Your task to perform on an android device: check android version Image 0: 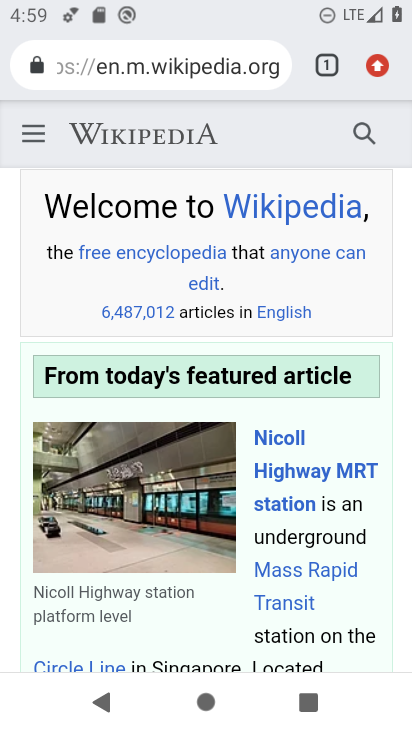
Step 0: press home button
Your task to perform on an android device: check android version Image 1: 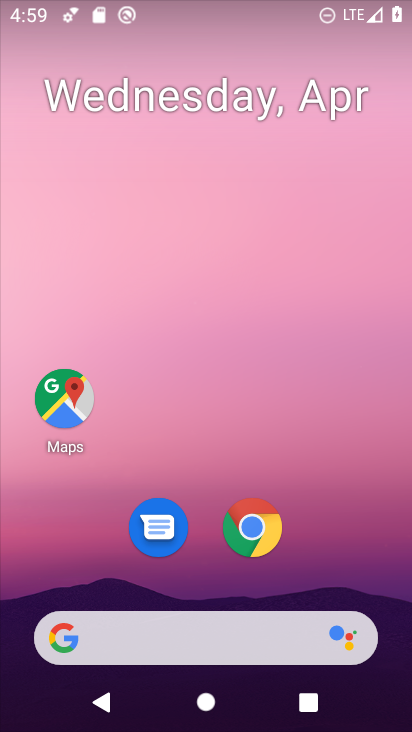
Step 1: drag from (386, 574) to (380, 13)
Your task to perform on an android device: check android version Image 2: 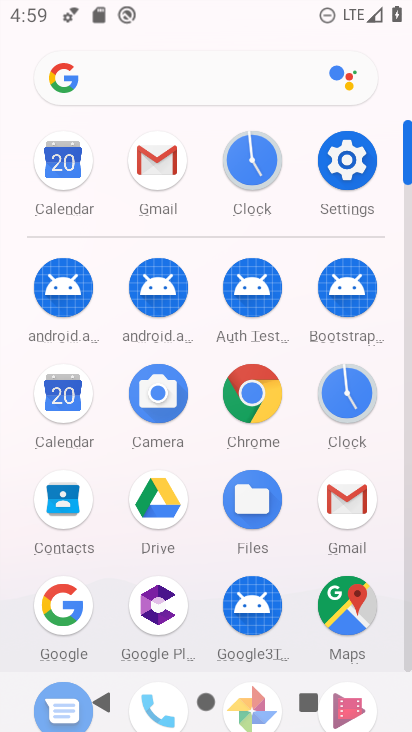
Step 2: click (342, 163)
Your task to perform on an android device: check android version Image 3: 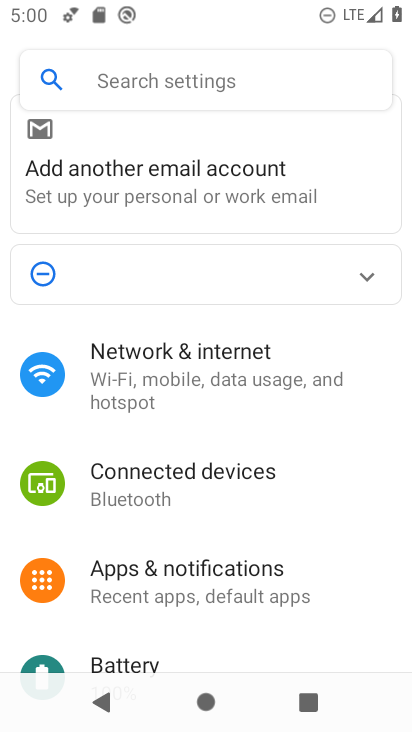
Step 3: drag from (359, 622) to (320, 84)
Your task to perform on an android device: check android version Image 4: 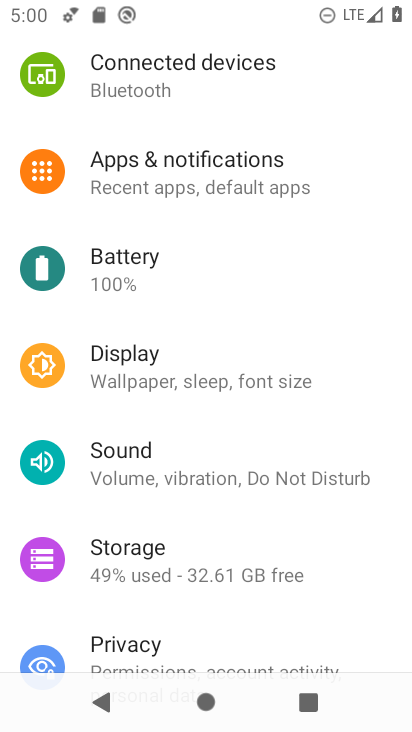
Step 4: drag from (360, 596) to (365, 130)
Your task to perform on an android device: check android version Image 5: 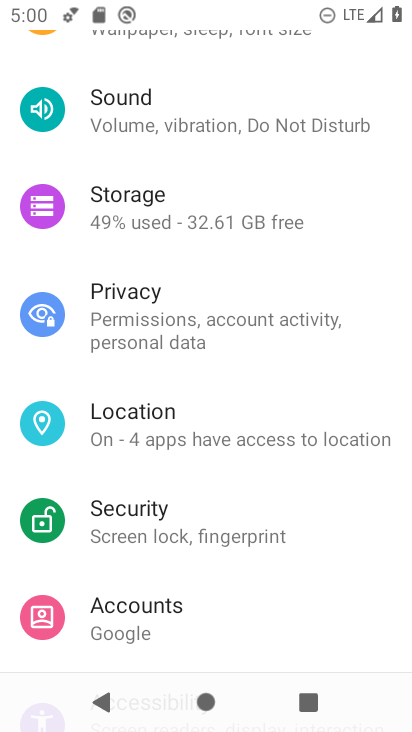
Step 5: drag from (341, 526) to (306, 108)
Your task to perform on an android device: check android version Image 6: 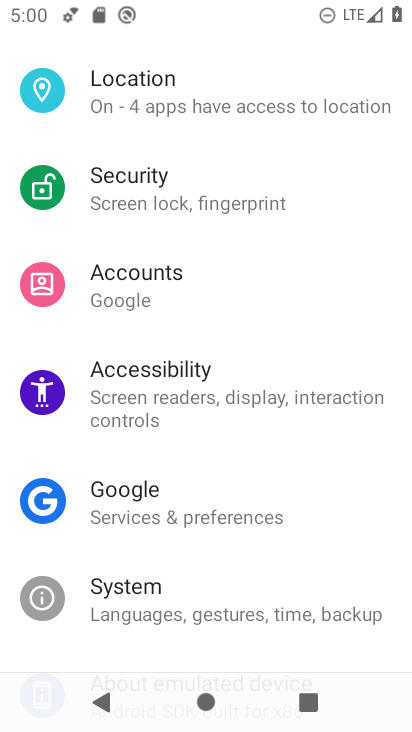
Step 6: drag from (323, 581) to (308, 156)
Your task to perform on an android device: check android version Image 7: 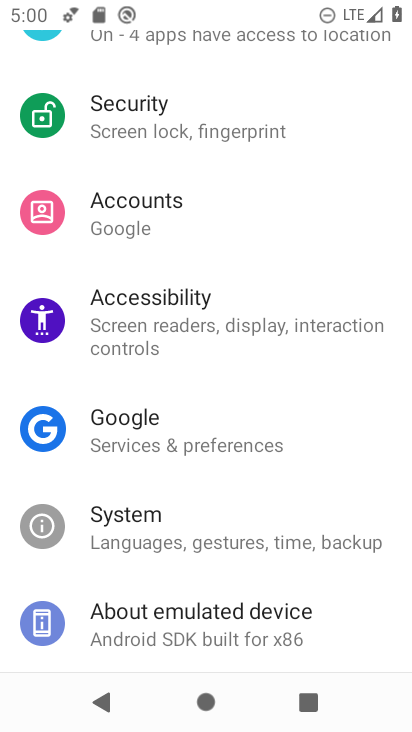
Step 7: click (184, 627)
Your task to perform on an android device: check android version Image 8: 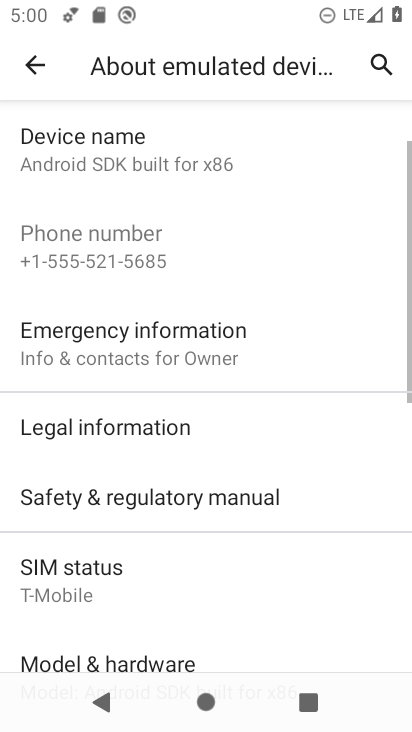
Step 8: drag from (270, 471) to (267, 59)
Your task to perform on an android device: check android version Image 9: 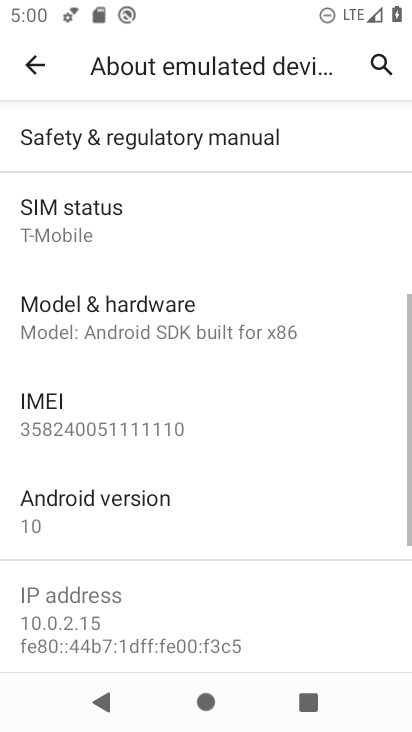
Step 9: click (67, 511)
Your task to perform on an android device: check android version Image 10: 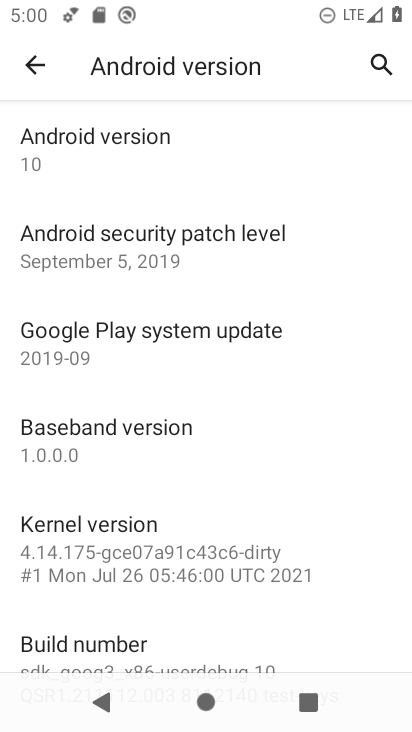
Step 10: task complete